Your task to perform on an android device: What's on my calendar today? Image 0: 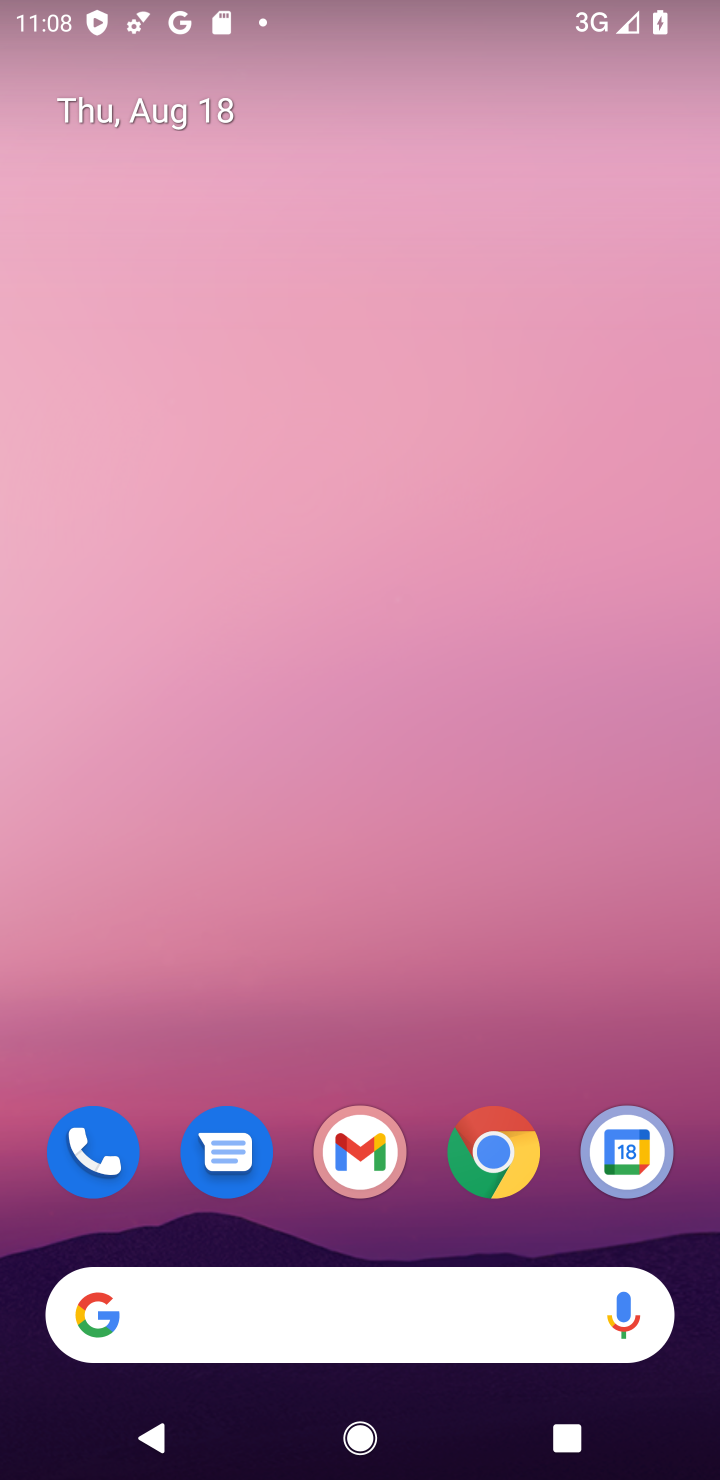
Step 0: click (639, 1150)
Your task to perform on an android device: What's on my calendar today? Image 1: 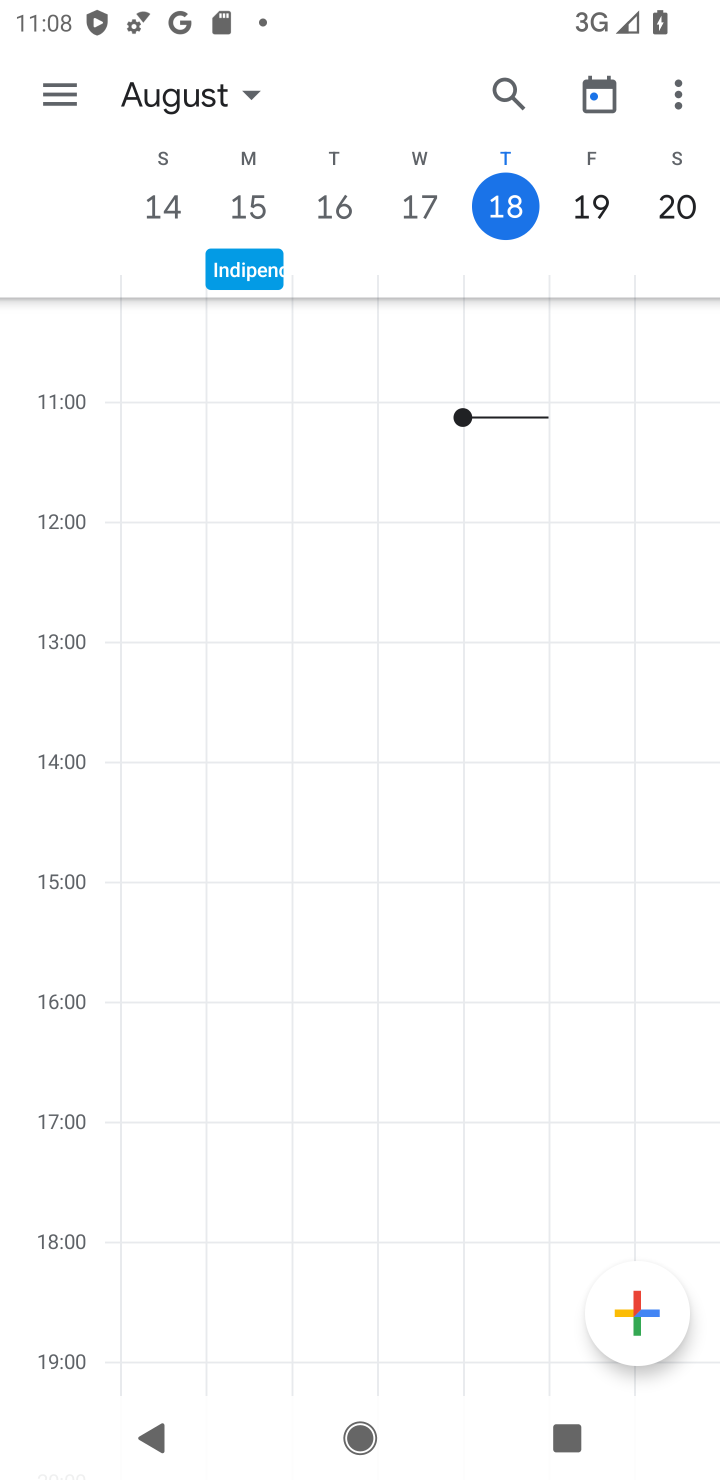
Step 1: task complete